Your task to perform on an android device: turn on bluetooth scan Image 0: 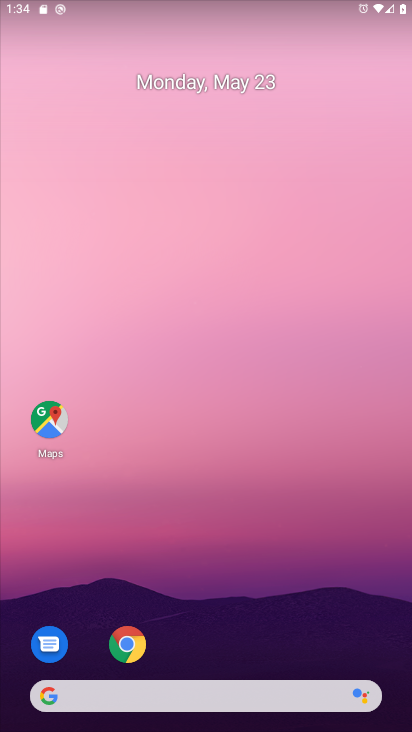
Step 0: drag from (203, 596) to (176, 221)
Your task to perform on an android device: turn on bluetooth scan Image 1: 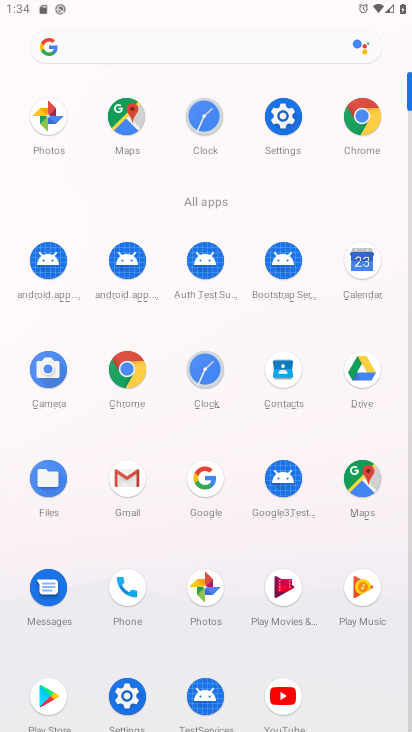
Step 1: click (275, 137)
Your task to perform on an android device: turn on bluetooth scan Image 2: 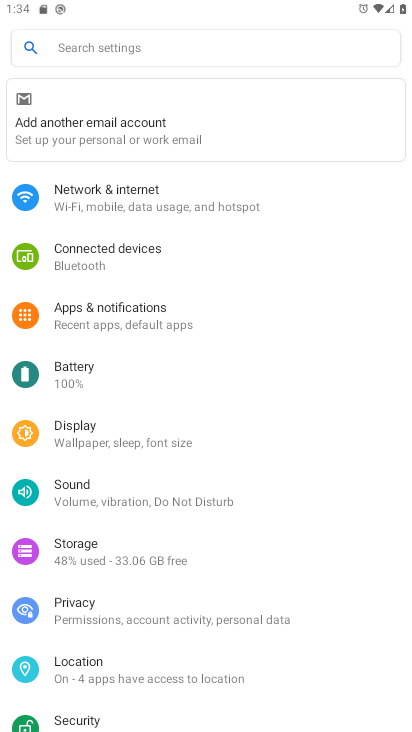
Step 2: drag from (131, 677) to (127, 365)
Your task to perform on an android device: turn on bluetooth scan Image 3: 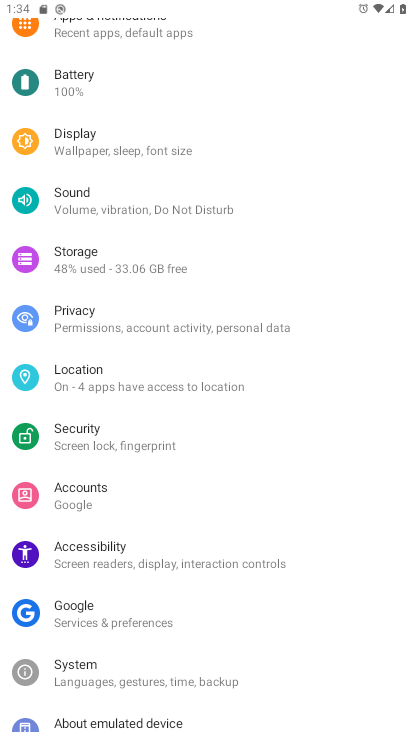
Step 3: drag from (162, 316) to (157, 590)
Your task to perform on an android device: turn on bluetooth scan Image 4: 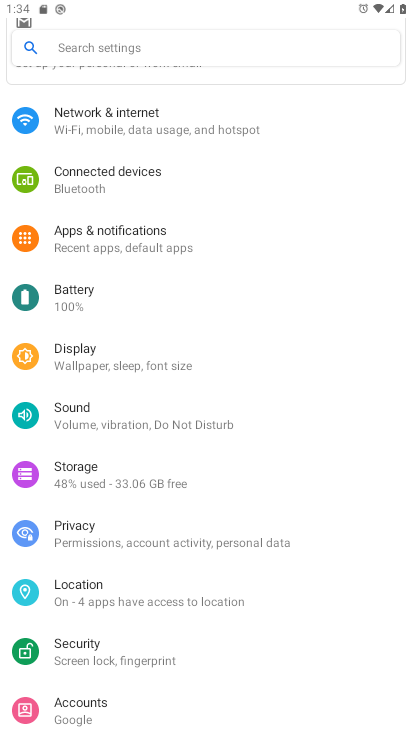
Step 4: click (109, 595)
Your task to perform on an android device: turn on bluetooth scan Image 5: 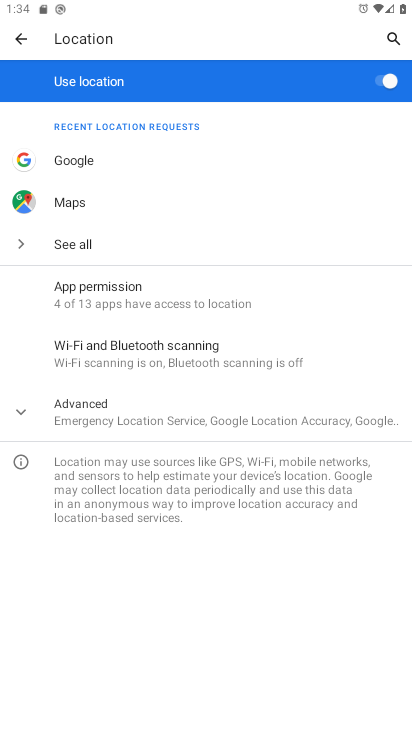
Step 5: click (100, 412)
Your task to perform on an android device: turn on bluetooth scan Image 6: 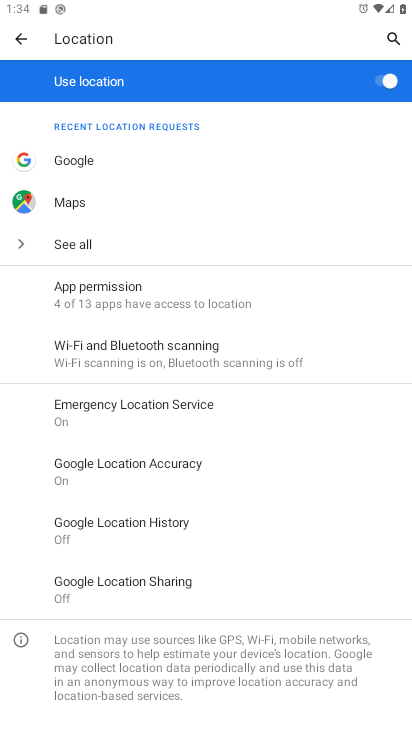
Step 6: click (120, 356)
Your task to perform on an android device: turn on bluetooth scan Image 7: 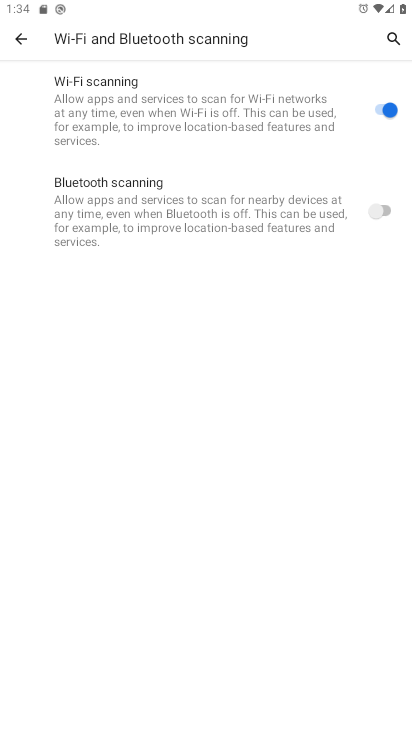
Step 7: click (388, 208)
Your task to perform on an android device: turn on bluetooth scan Image 8: 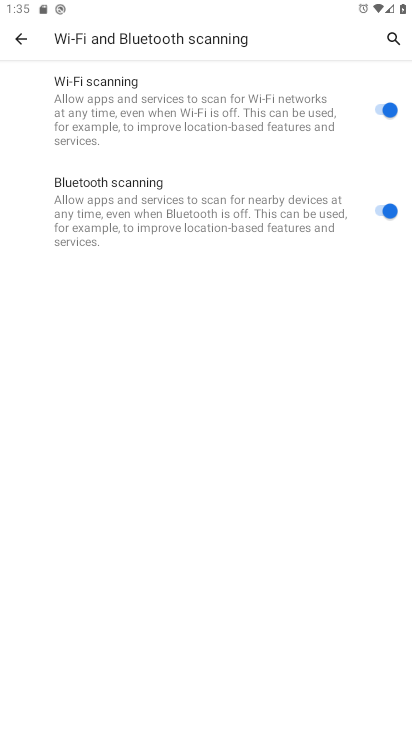
Step 8: task complete